Your task to perform on an android device: manage bookmarks in the chrome app Image 0: 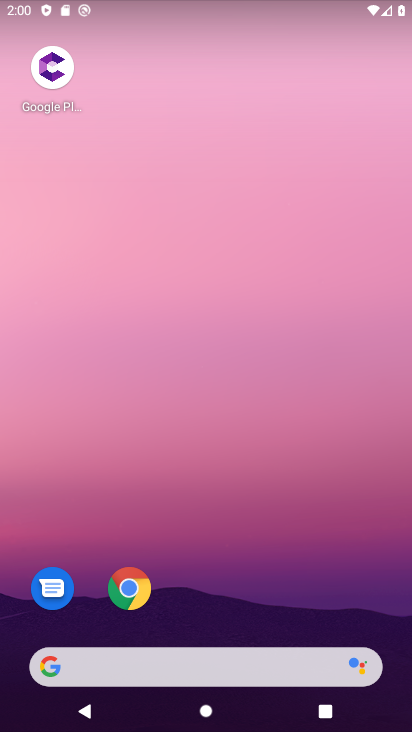
Step 0: drag from (387, 637) to (267, 176)
Your task to perform on an android device: manage bookmarks in the chrome app Image 1: 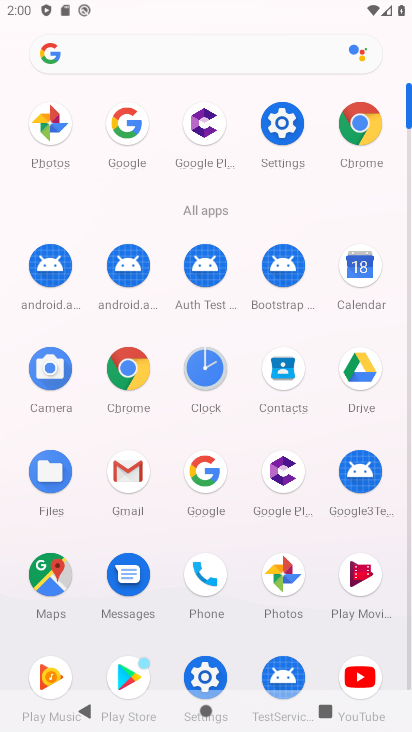
Step 1: click (363, 128)
Your task to perform on an android device: manage bookmarks in the chrome app Image 2: 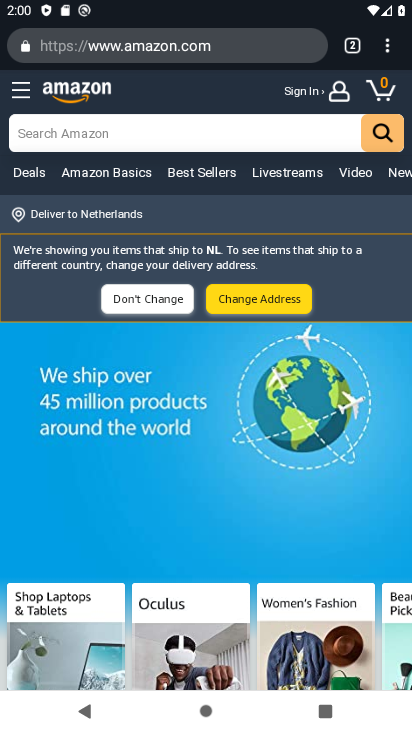
Step 2: click (391, 48)
Your task to perform on an android device: manage bookmarks in the chrome app Image 3: 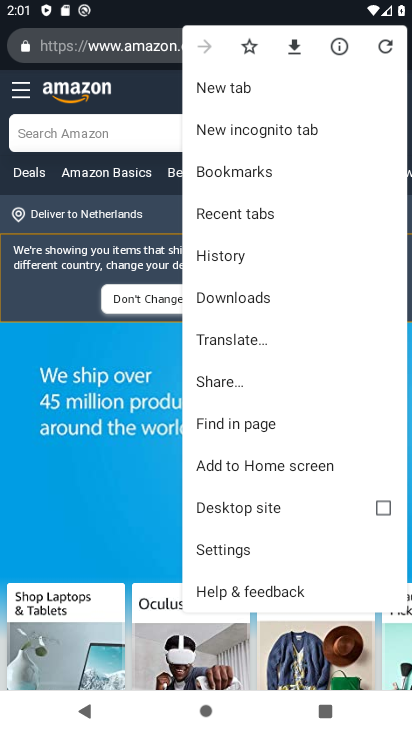
Step 3: click (292, 168)
Your task to perform on an android device: manage bookmarks in the chrome app Image 4: 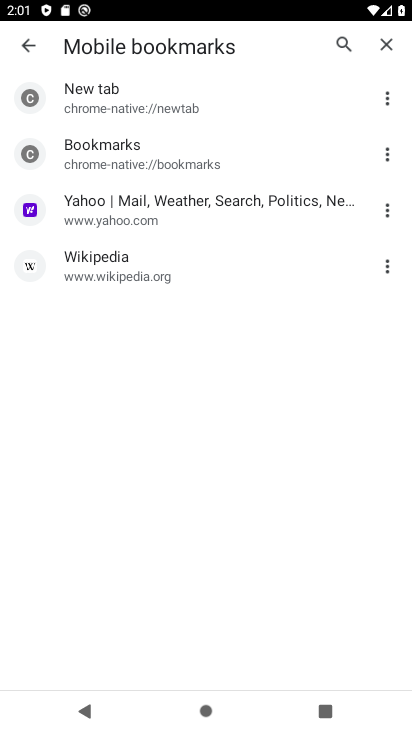
Step 4: click (235, 245)
Your task to perform on an android device: manage bookmarks in the chrome app Image 5: 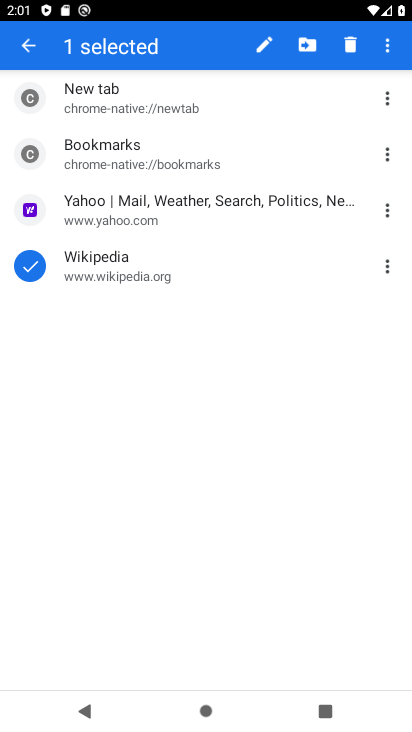
Step 5: click (307, 48)
Your task to perform on an android device: manage bookmarks in the chrome app Image 6: 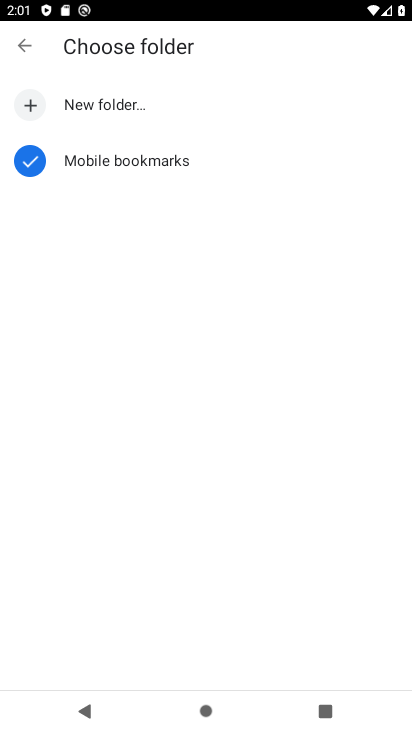
Step 6: click (229, 156)
Your task to perform on an android device: manage bookmarks in the chrome app Image 7: 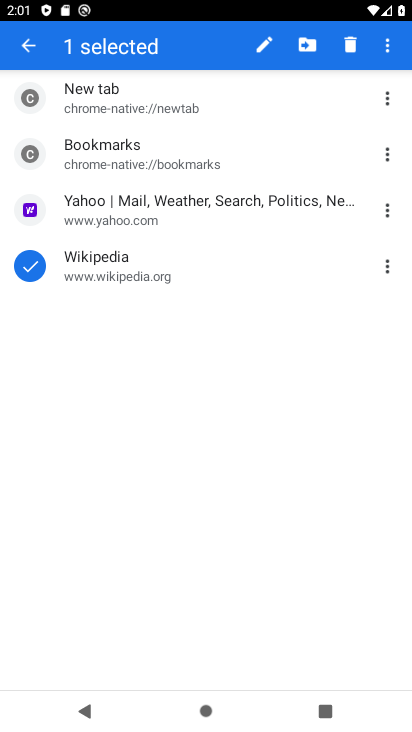
Step 7: task complete